Your task to perform on an android device: change your default location settings in chrome Image 0: 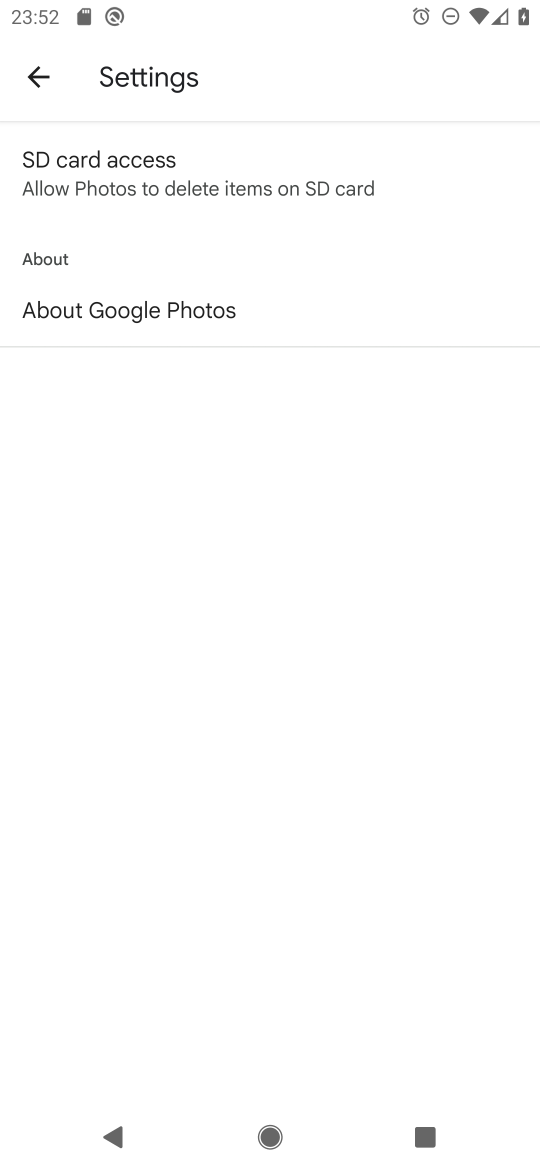
Step 0: press home button
Your task to perform on an android device: change your default location settings in chrome Image 1: 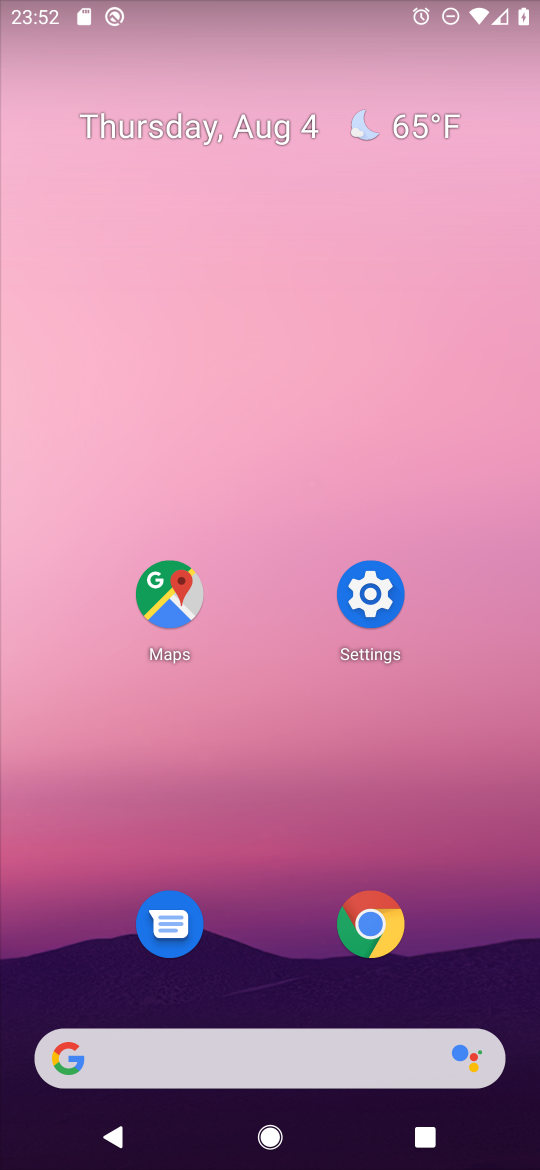
Step 1: click (372, 908)
Your task to perform on an android device: change your default location settings in chrome Image 2: 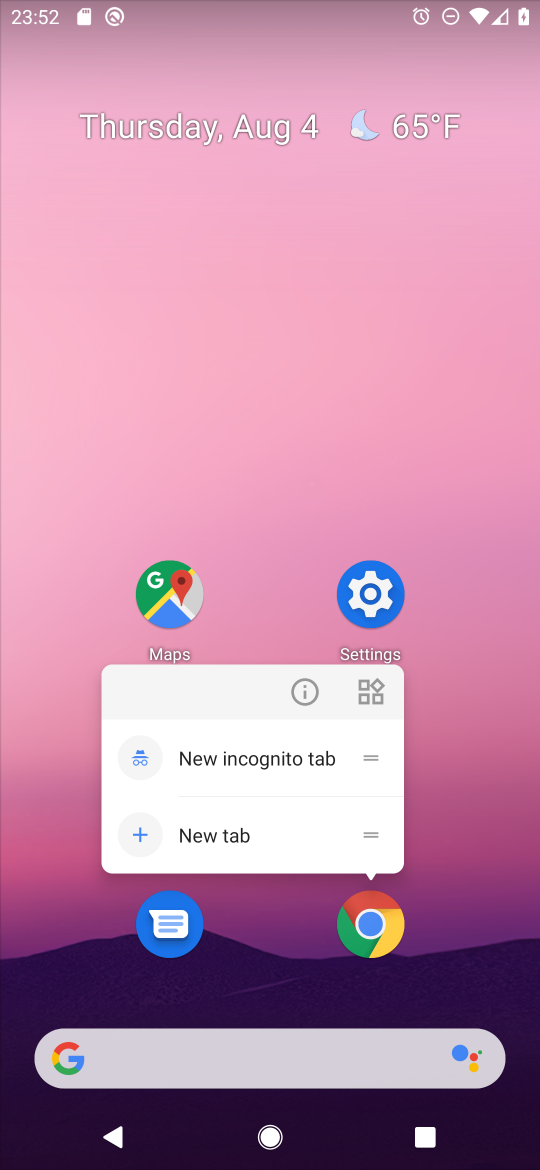
Step 2: click (375, 915)
Your task to perform on an android device: change your default location settings in chrome Image 3: 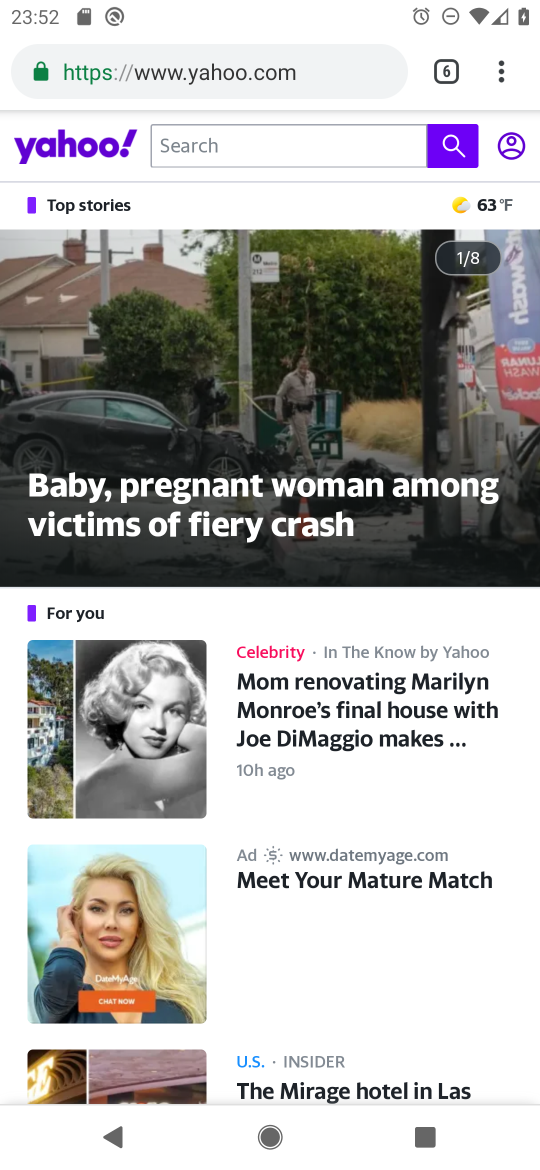
Step 3: drag from (503, 89) to (390, 879)
Your task to perform on an android device: change your default location settings in chrome Image 4: 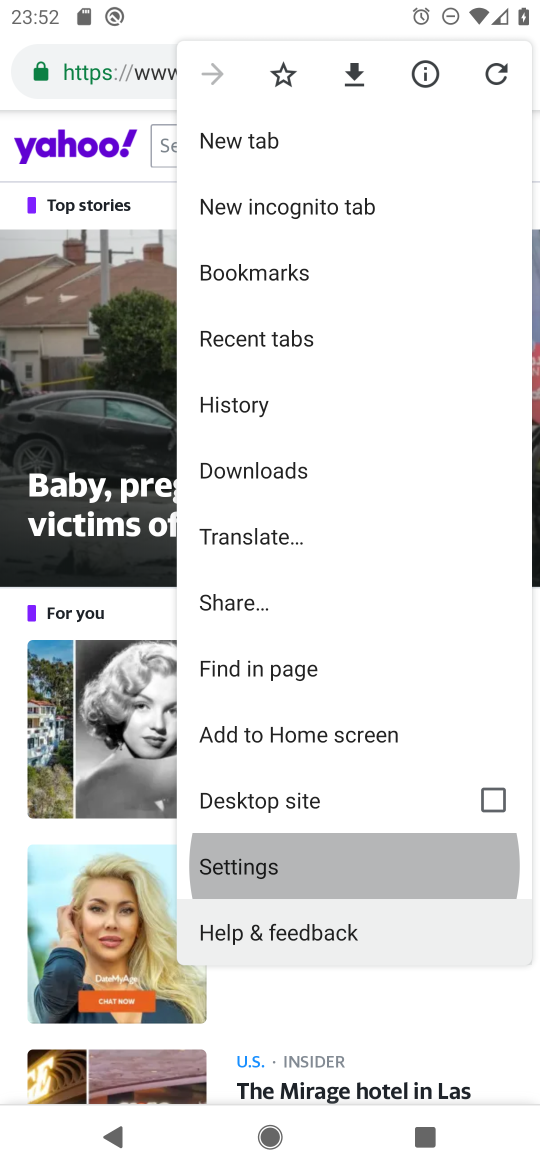
Step 4: click (395, 873)
Your task to perform on an android device: change your default location settings in chrome Image 5: 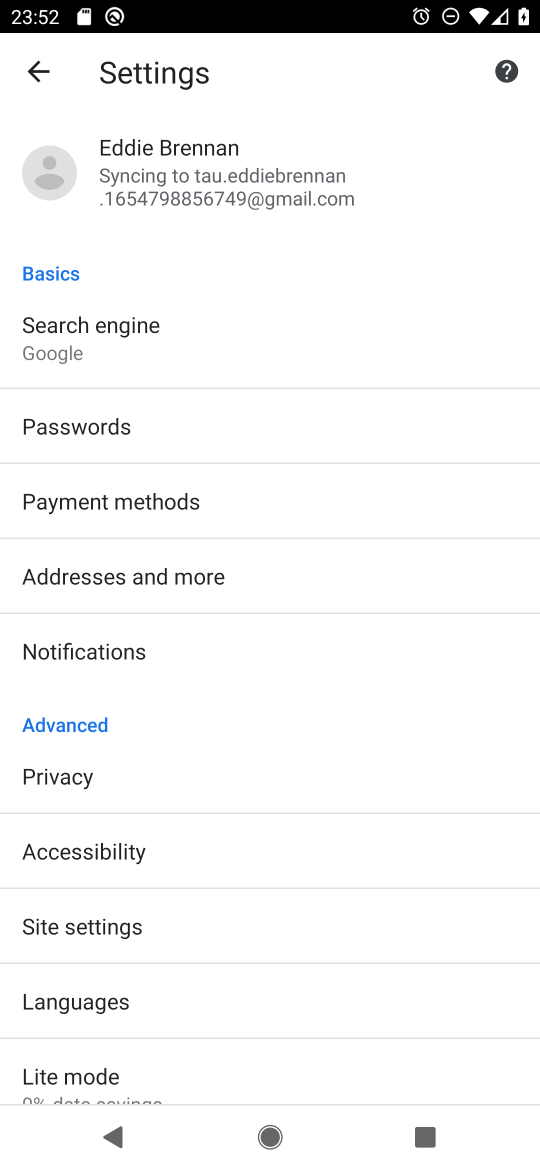
Step 5: drag from (181, 945) to (243, 680)
Your task to perform on an android device: change your default location settings in chrome Image 6: 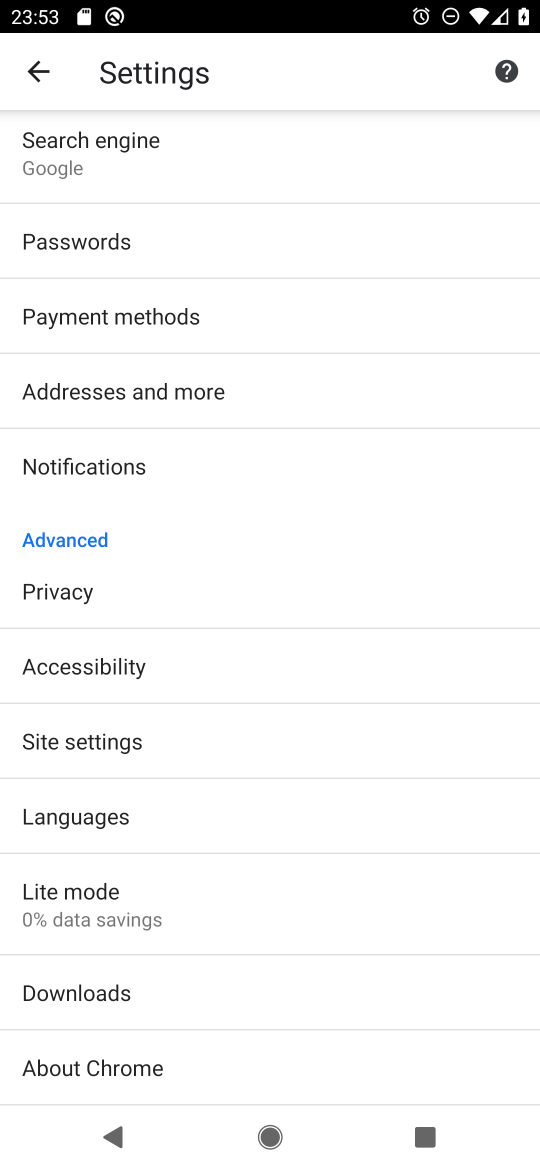
Step 6: click (112, 739)
Your task to perform on an android device: change your default location settings in chrome Image 7: 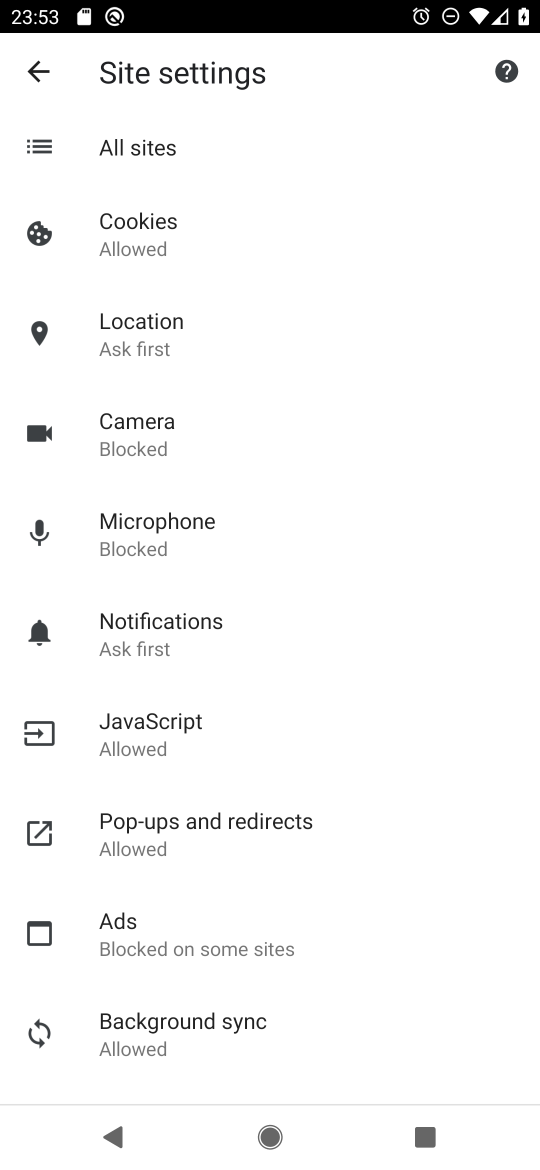
Step 7: click (150, 349)
Your task to perform on an android device: change your default location settings in chrome Image 8: 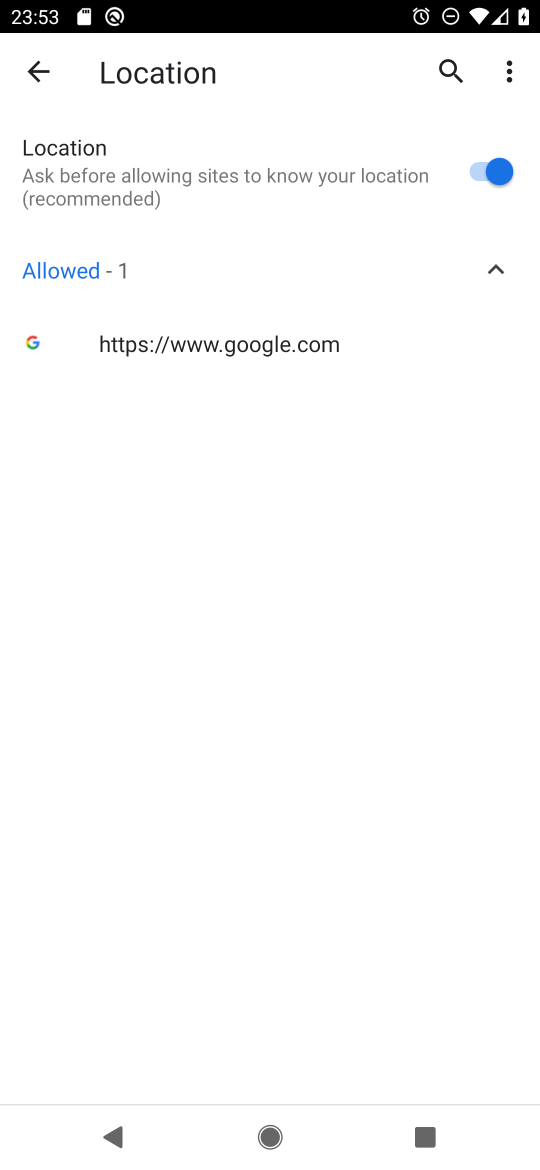
Step 8: click (480, 170)
Your task to perform on an android device: change your default location settings in chrome Image 9: 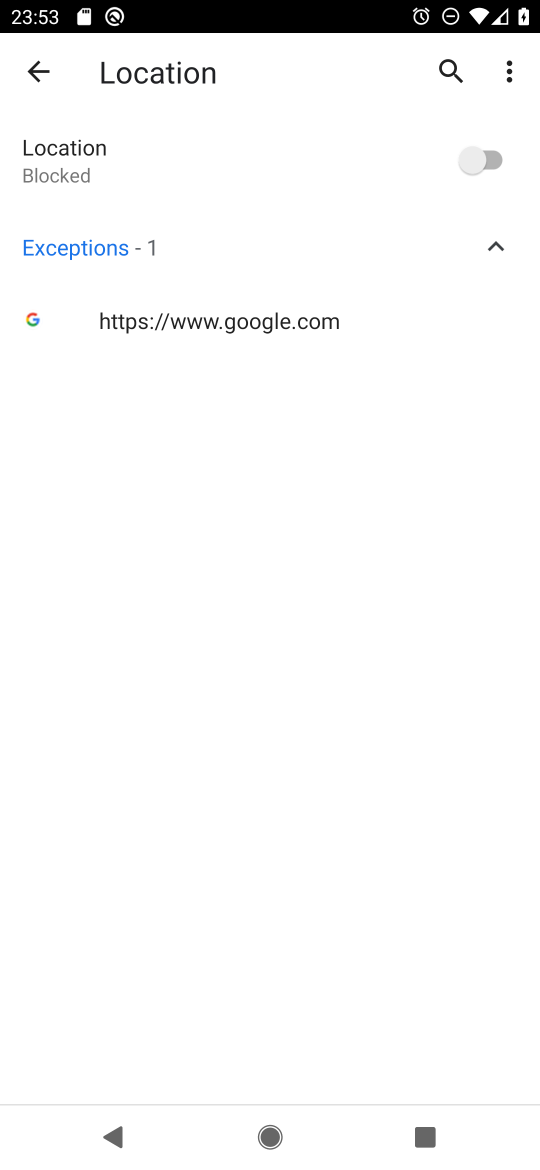
Step 9: task complete